Your task to perform on an android device: Go to Wikipedia Image 0: 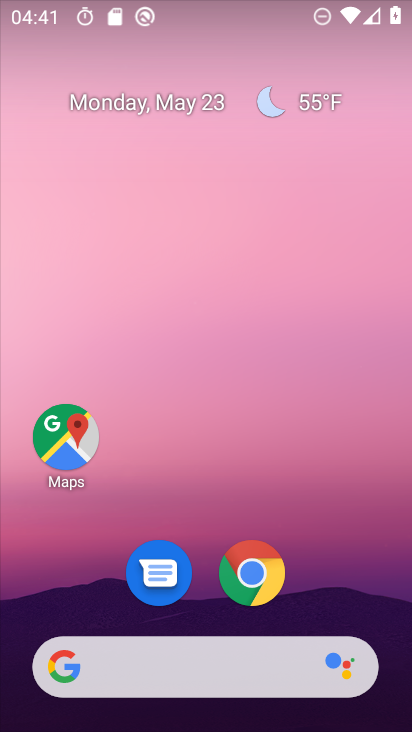
Step 0: click (254, 576)
Your task to perform on an android device: Go to Wikipedia Image 1: 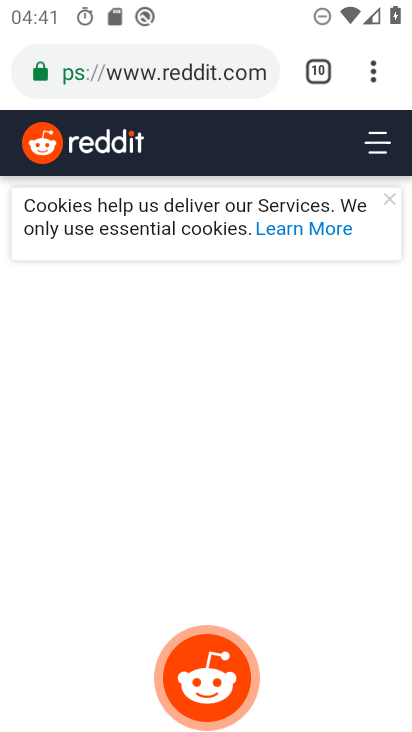
Step 1: click (318, 70)
Your task to perform on an android device: Go to Wikipedia Image 2: 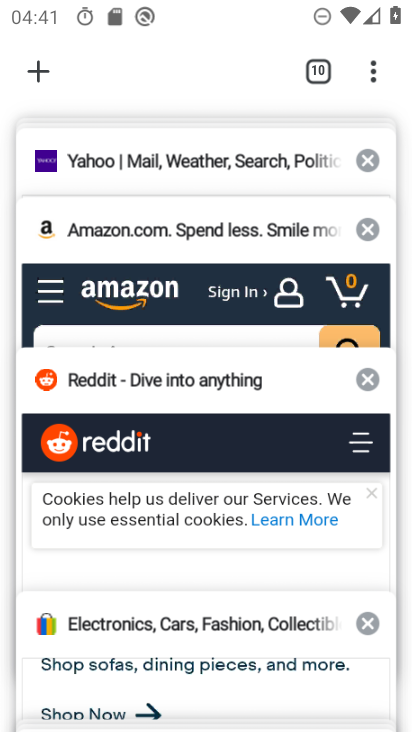
Step 2: drag from (204, 271) to (213, 516)
Your task to perform on an android device: Go to Wikipedia Image 3: 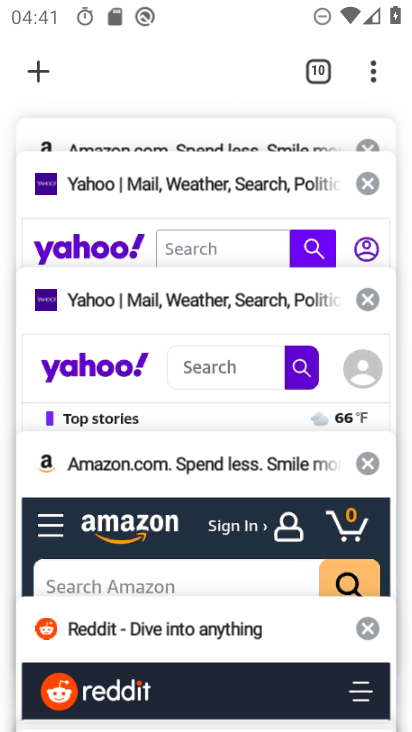
Step 3: drag from (185, 158) to (211, 453)
Your task to perform on an android device: Go to Wikipedia Image 4: 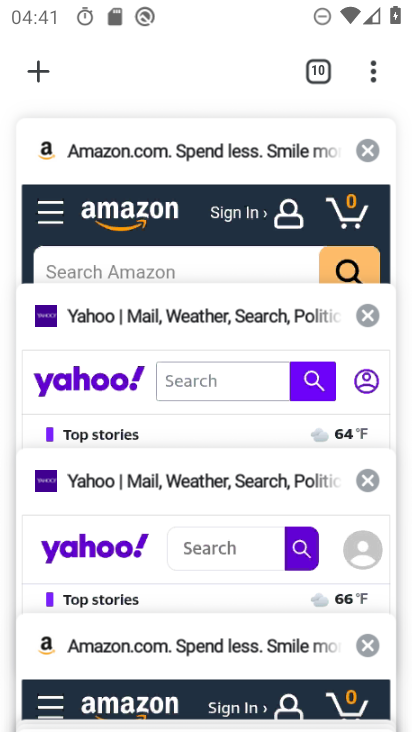
Step 4: drag from (204, 178) to (210, 534)
Your task to perform on an android device: Go to Wikipedia Image 5: 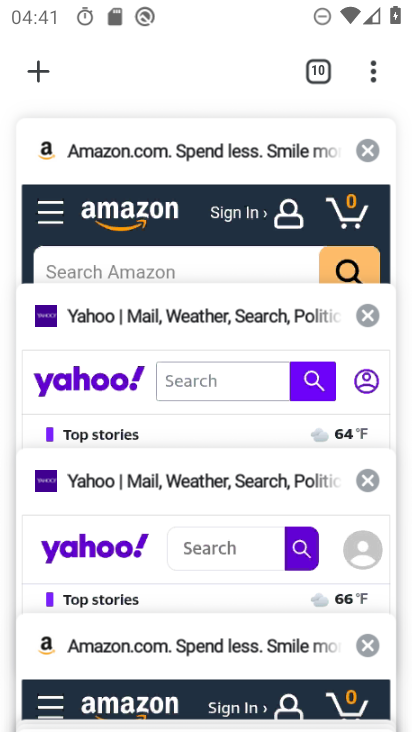
Step 5: click (34, 67)
Your task to perform on an android device: Go to Wikipedia Image 6: 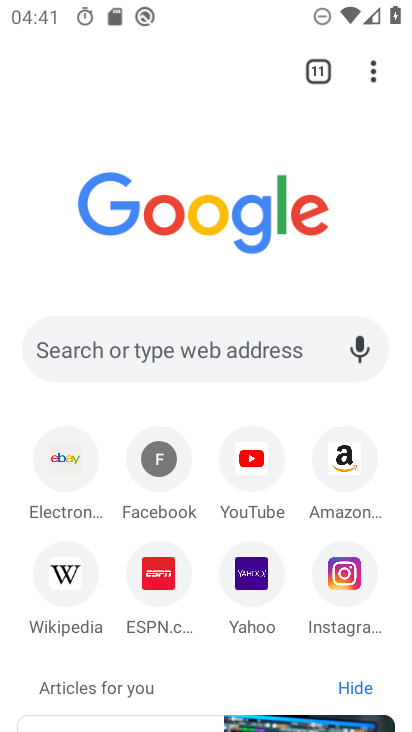
Step 6: click (51, 576)
Your task to perform on an android device: Go to Wikipedia Image 7: 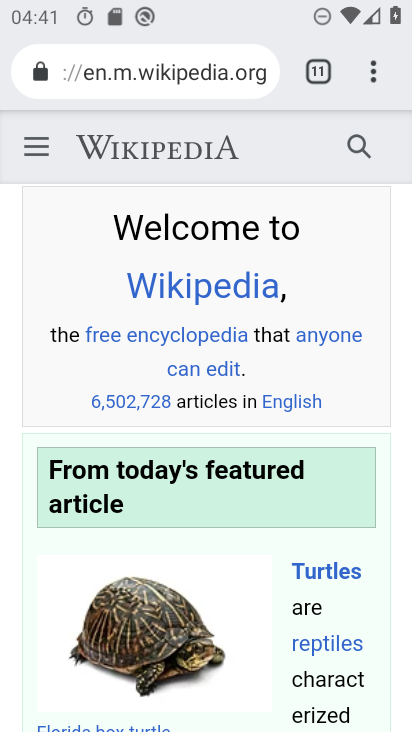
Step 7: task complete